Your task to perform on an android device: Search for acer predator on ebay.com, select the first entry, and add it to the cart. Image 0: 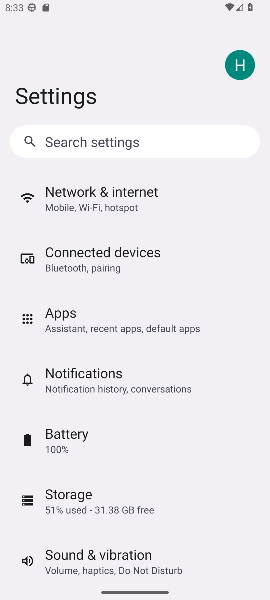
Step 0: press home button
Your task to perform on an android device: Search for acer predator on ebay.com, select the first entry, and add it to the cart. Image 1: 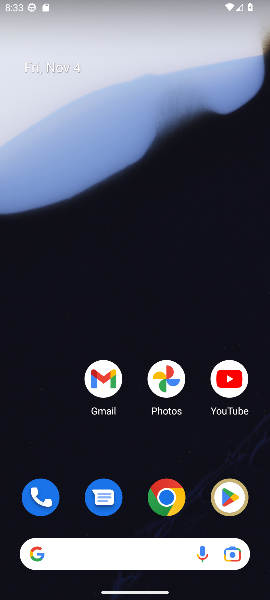
Step 1: click (165, 504)
Your task to perform on an android device: Search for acer predator on ebay.com, select the first entry, and add it to the cart. Image 2: 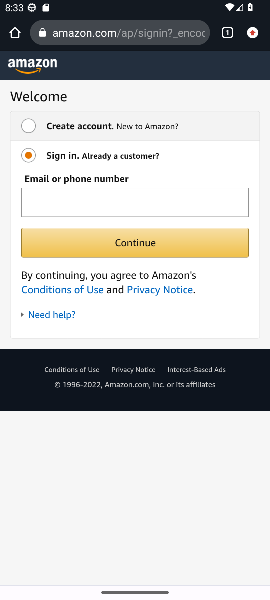
Step 2: click (74, 28)
Your task to perform on an android device: Search for acer predator on ebay.com, select the first entry, and add it to the cart. Image 3: 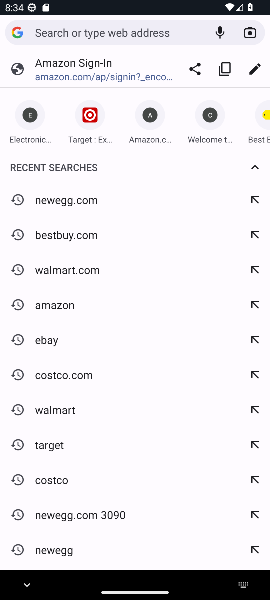
Step 3: click (52, 344)
Your task to perform on an android device: Search for acer predator on ebay.com, select the first entry, and add it to the cart. Image 4: 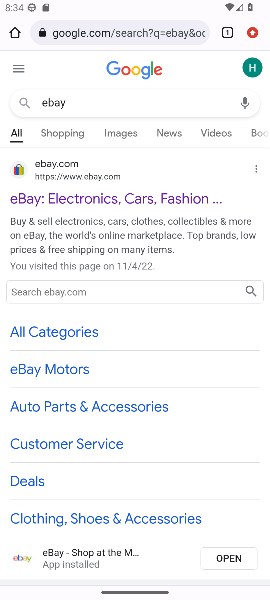
Step 4: click (57, 199)
Your task to perform on an android device: Search for acer predator on ebay.com, select the first entry, and add it to the cart. Image 5: 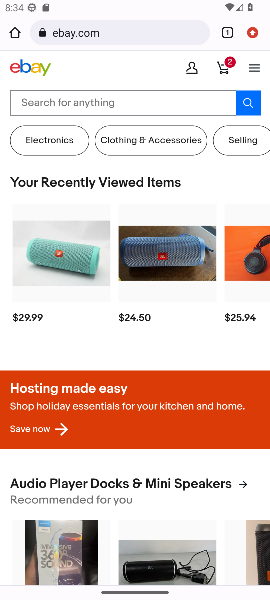
Step 5: click (67, 108)
Your task to perform on an android device: Search for acer predator on ebay.com, select the first entry, and add it to the cart. Image 6: 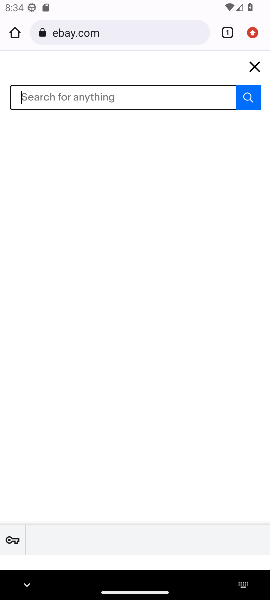
Step 6: type "acer predator "
Your task to perform on an android device: Search for acer predator on ebay.com, select the first entry, and add it to the cart. Image 7: 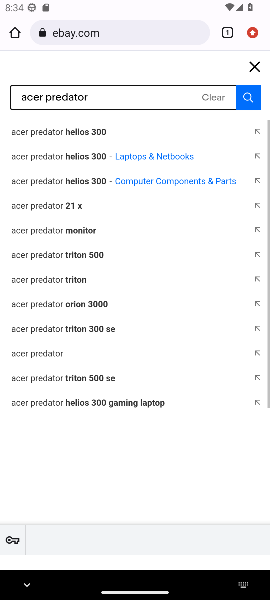
Step 7: click (244, 96)
Your task to perform on an android device: Search for acer predator on ebay.com, select the first entry, and add it to the cart. Image 8: 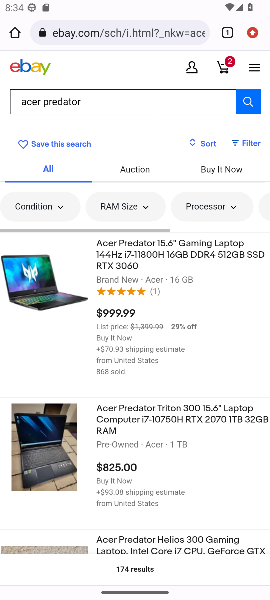
Step 8: click (121, 273)
Your task to perform on an android device: Search for acer predator on ebay.com, select the first entry, and add it to the cart. Image 9: 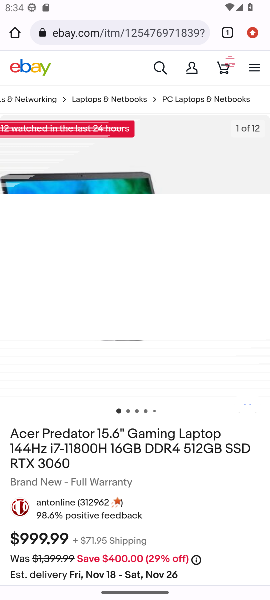
Step 9: drag from (147, 432) to (117, 183)
Your task to perform on an android device: Search for acer predator on ebay.com, select the first entry, and add it to the cart. Image 10: 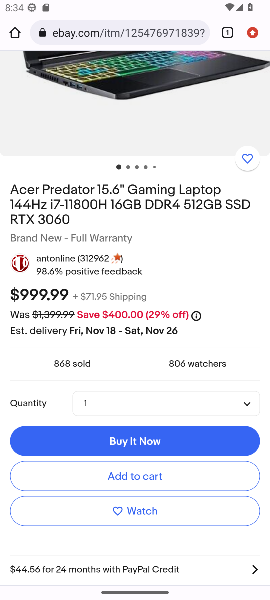
Step 10: click (112, 480)
Your task to perform on an android device: Search for acer predator on ebay.com, select the first entry, and add it to the cart. Image 11: 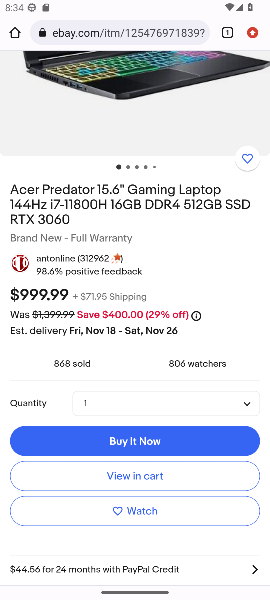
Step 11: task complete